Your task to perform on an android device: visit the assistant section in the google photos Image 0: 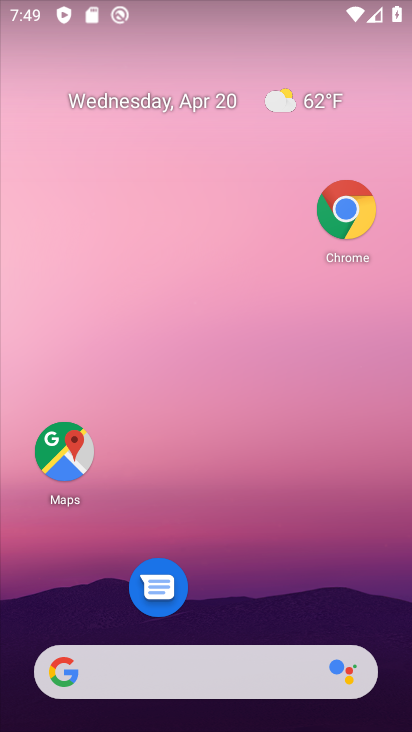
Step 0: drag from (261, 617) to (200, 129)
Your task to perform on an android device: visit the assistant section in the google photos Image 1: 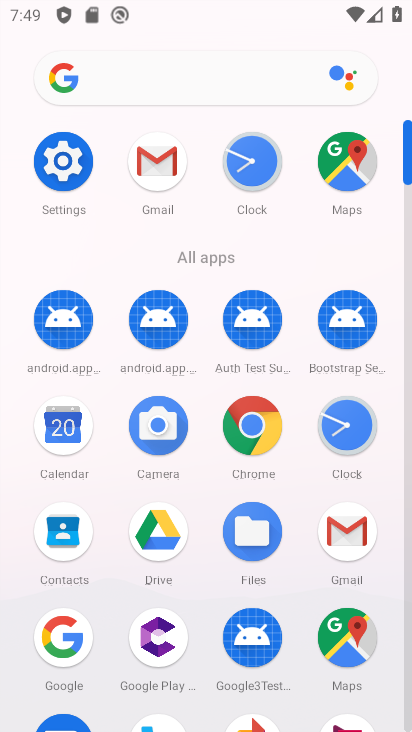
Step 1: drag from (118, 592) to (63, 111)
Your task to perform on an android device: visit the assistant section in the google photos Image 2: 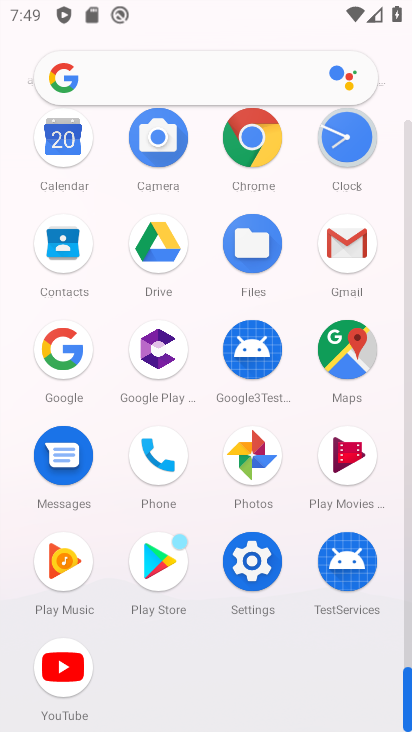
Step 2: click (255, 456)
Your task to perform on an android device: visit the assistant section in the google photos Image 3: 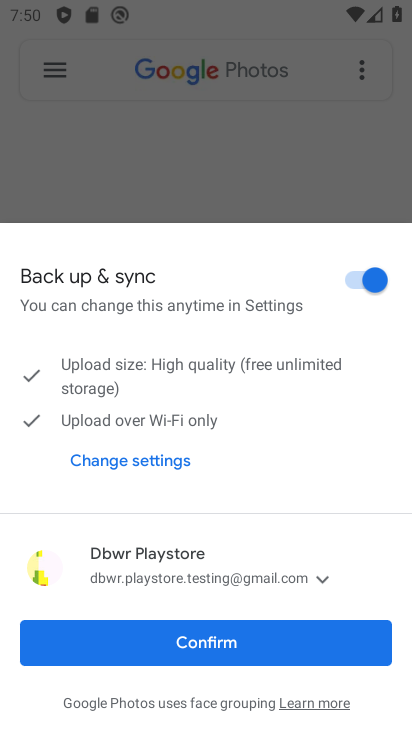
Step 3: click (203, 145)
Your task to perform on an android device: visit the assistant section in the google photos Image 4: 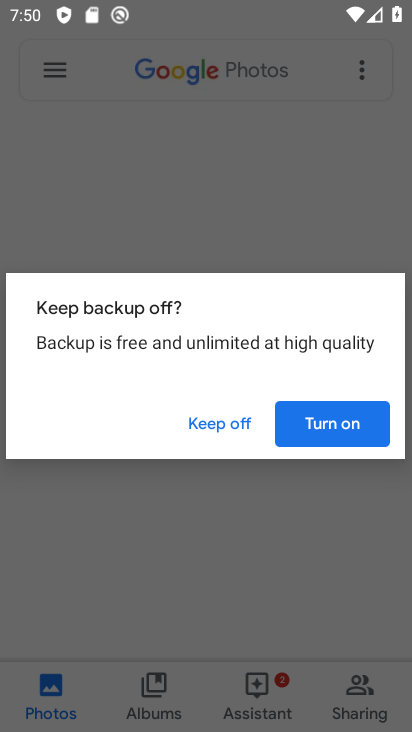
Step 4: click (340, 418)
Your task to perform on an android device: visit the assistant section in the google photos Image 5: 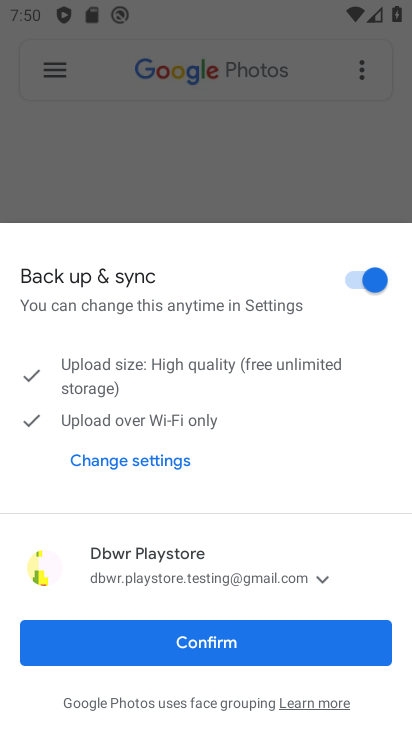
Step 5: click (286, 629)
Your task to perform on an android device: visit the assistant section in the google photos Image 6: 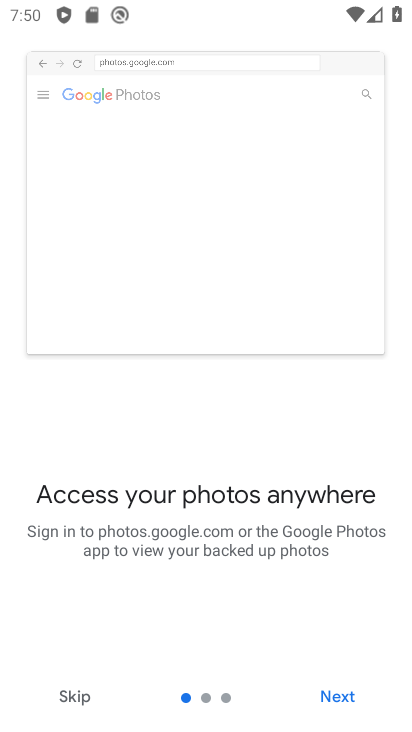
Step 6: click (83, 708)
Your task to perform on an android device: visit the assistant section in the google photos Image 7: 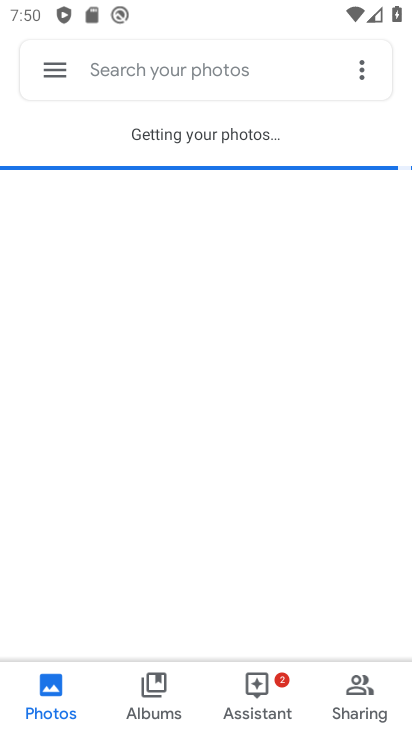
Step 7: click (251, 701)
Your task to perform on an android device: visit the assistant section in the google photos Image 8: 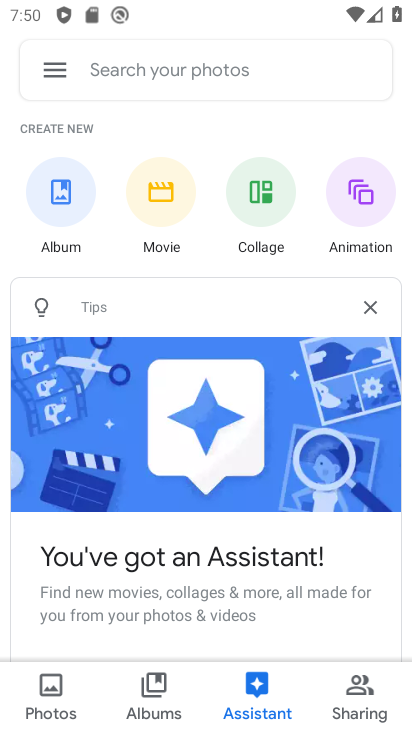
Step 8: task complete